Your task to perform on an android device: Go to location settings Image 0: 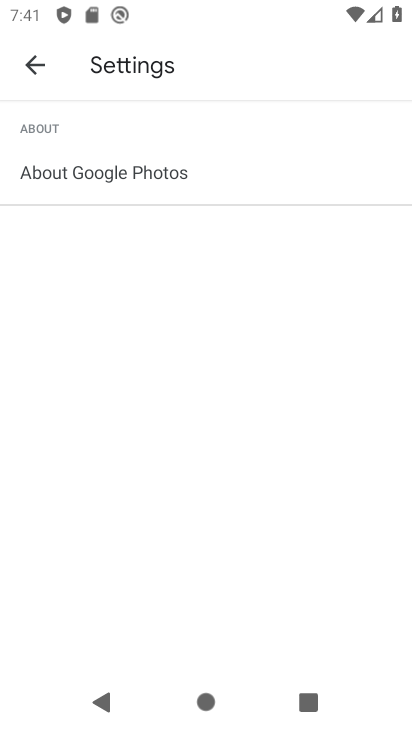
Step 0: press home button
Your task to perform on an android device: Go to location settings Image 1: 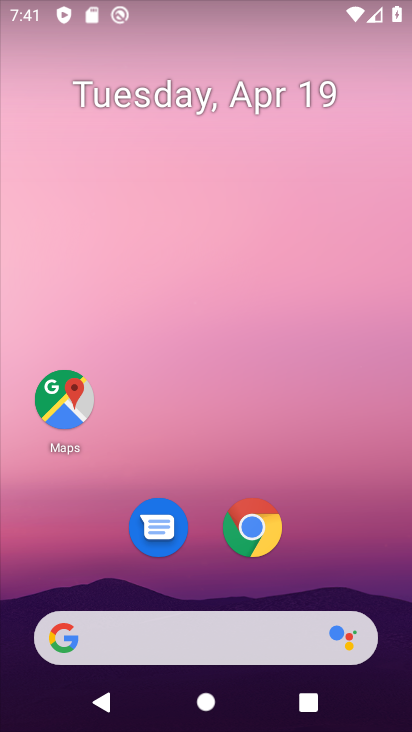
Step 1: drag from (308, 520) to (326, 113)
Your task to perform on an android device: Go to location settings Image 2: 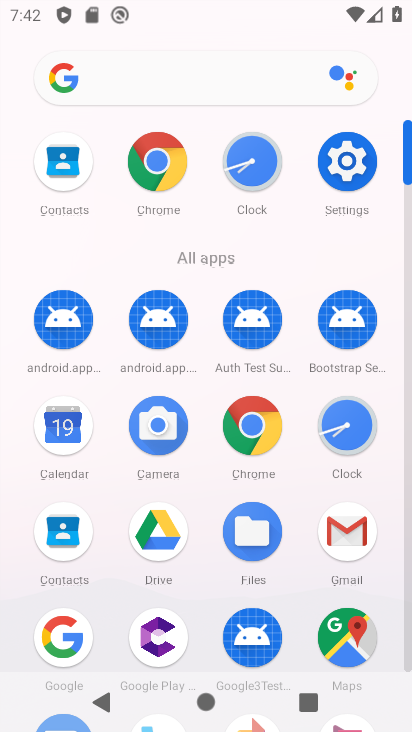
Step 2: click (350, 179)
Your task to perform on an android device: Go to location settings Image 3: 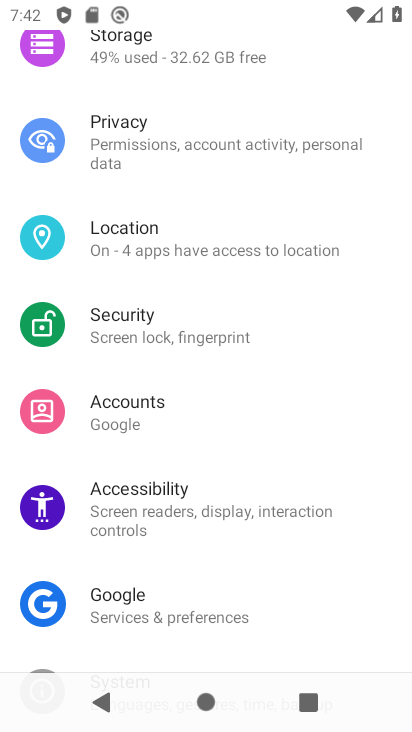
Step 3: click (147, 234)
Your task to perform on an android device: Go to location settings Image 4: 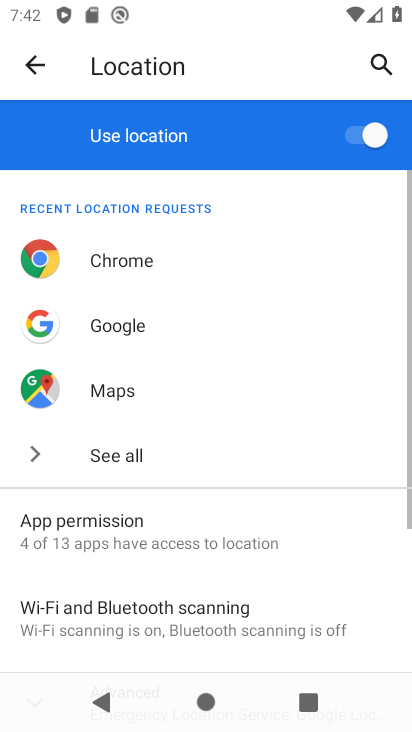
Step 4: task complete